Your task to perform on an android device: open app "Walmart Shopping & Grocery" (install if not already installed) Image 0: 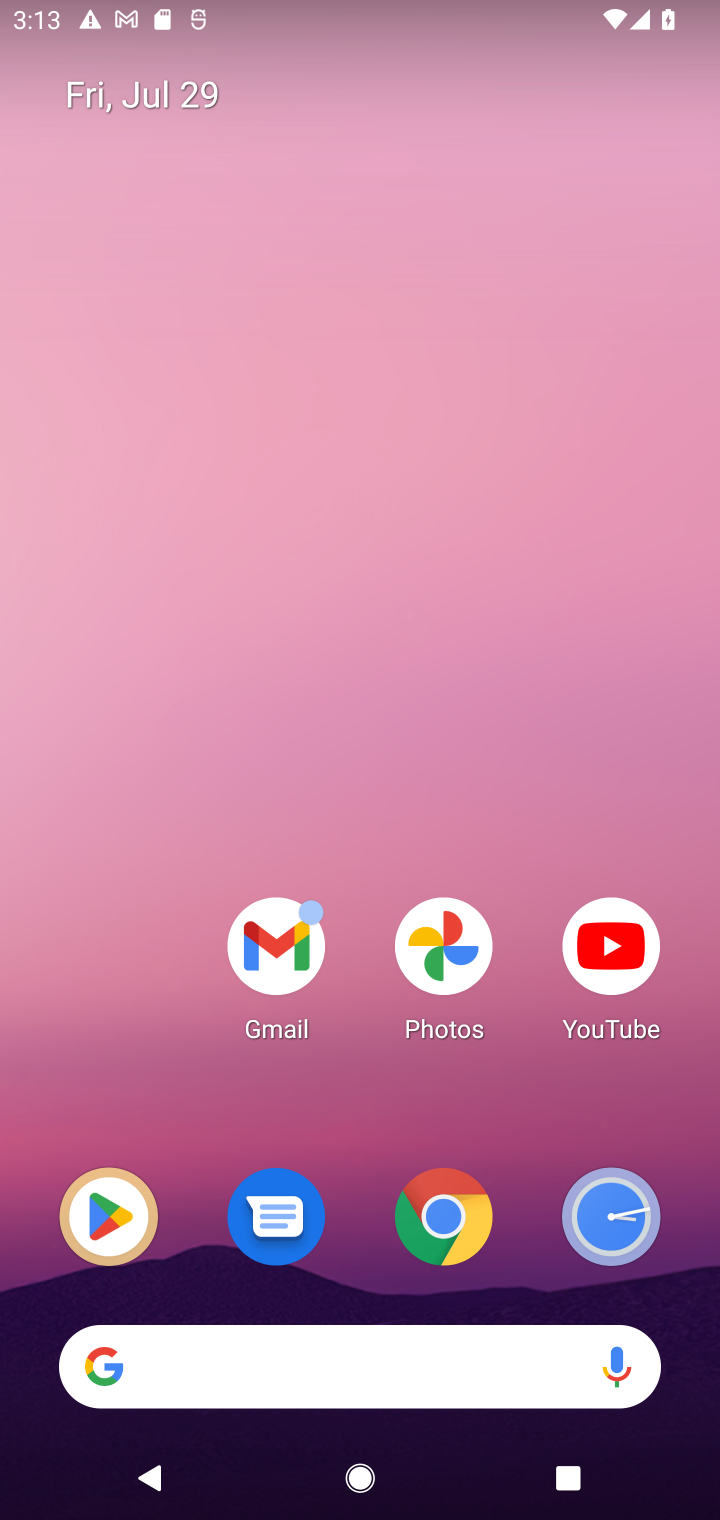
Step 0: drag from (571, 1227) to (523, 207)
Your task to perform on an android device: open app "Walmart Shopping & Grocery" (install if not already installed) Image 1: 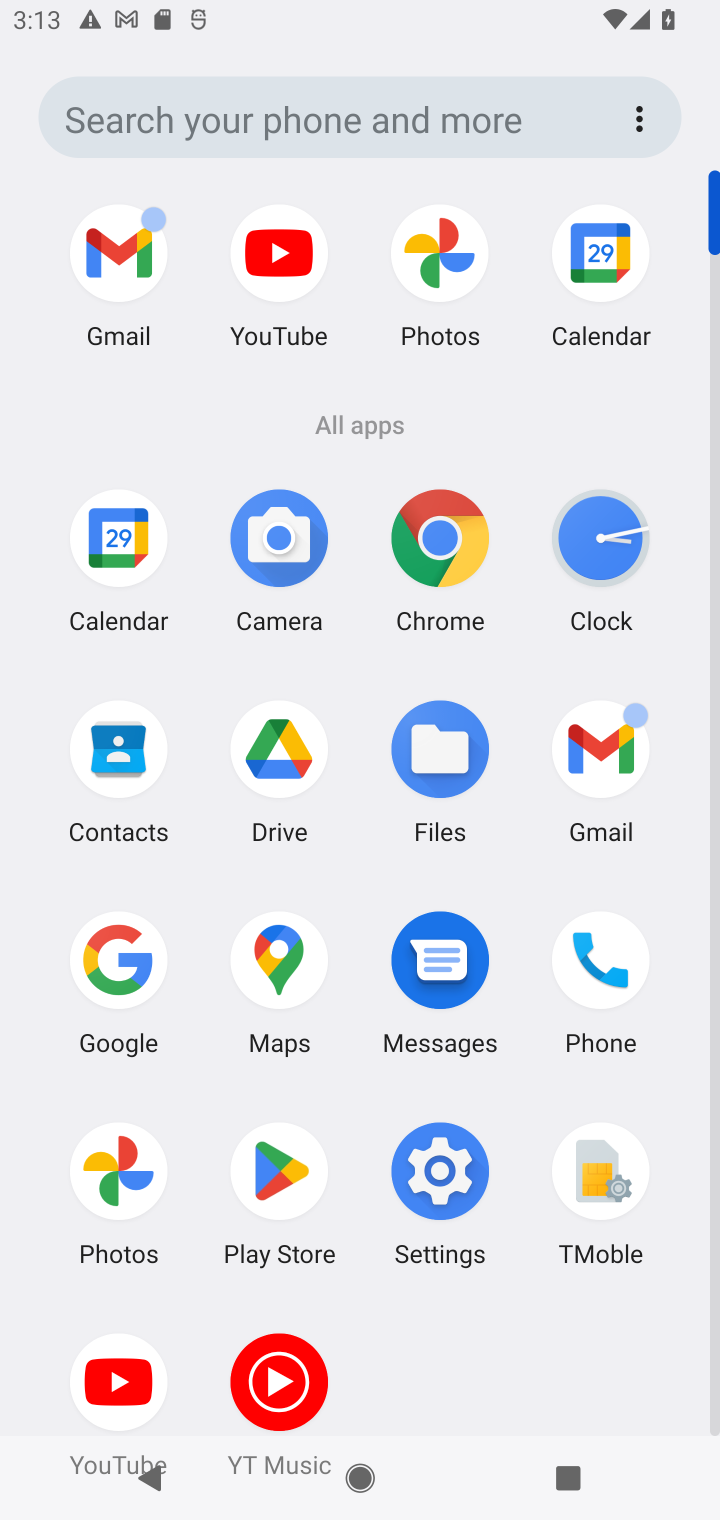
Step 1: click (269, 1190)
Your task to perform on an android device: open app "Walmart Shopping & Grocery" (install if not already installed) Image 2: 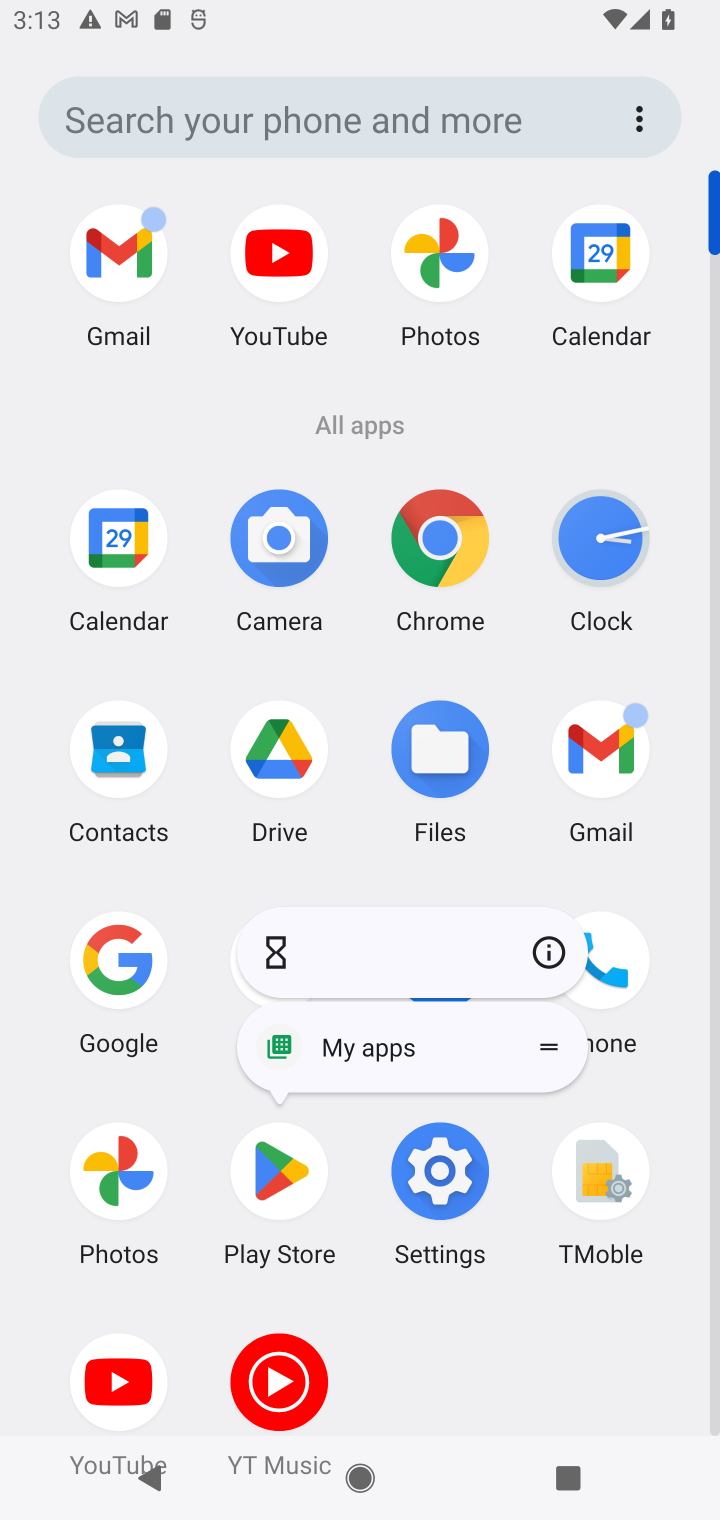
Step 2: click (269, 1187)
Your task to perform on an android device: open app "Walmart Shopping & Grocery" (install if not already installed) Image 3: 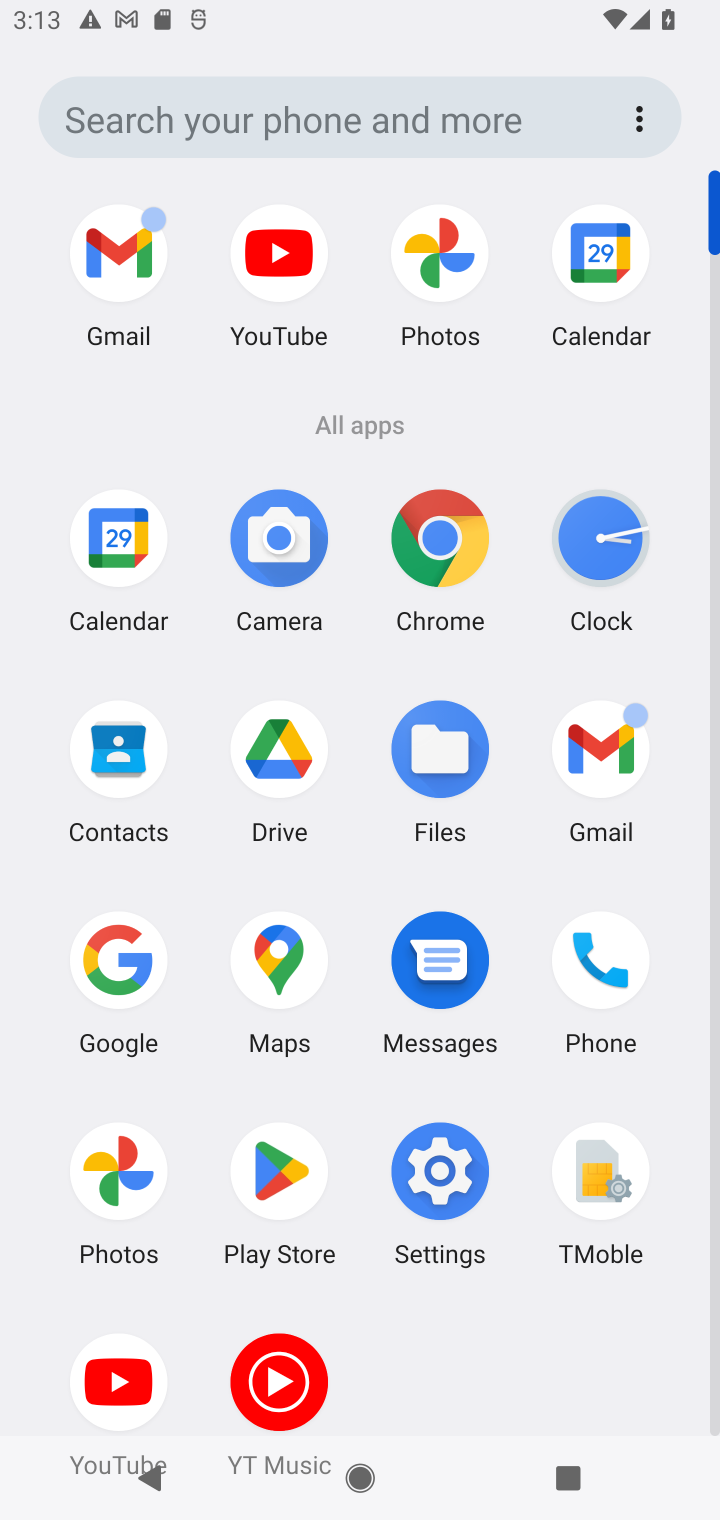
Step 3: click (269, 1187)
Your task to perform on an android device: open app "Walmart Shopping & Grocery" (install if not already installed) Image 4: 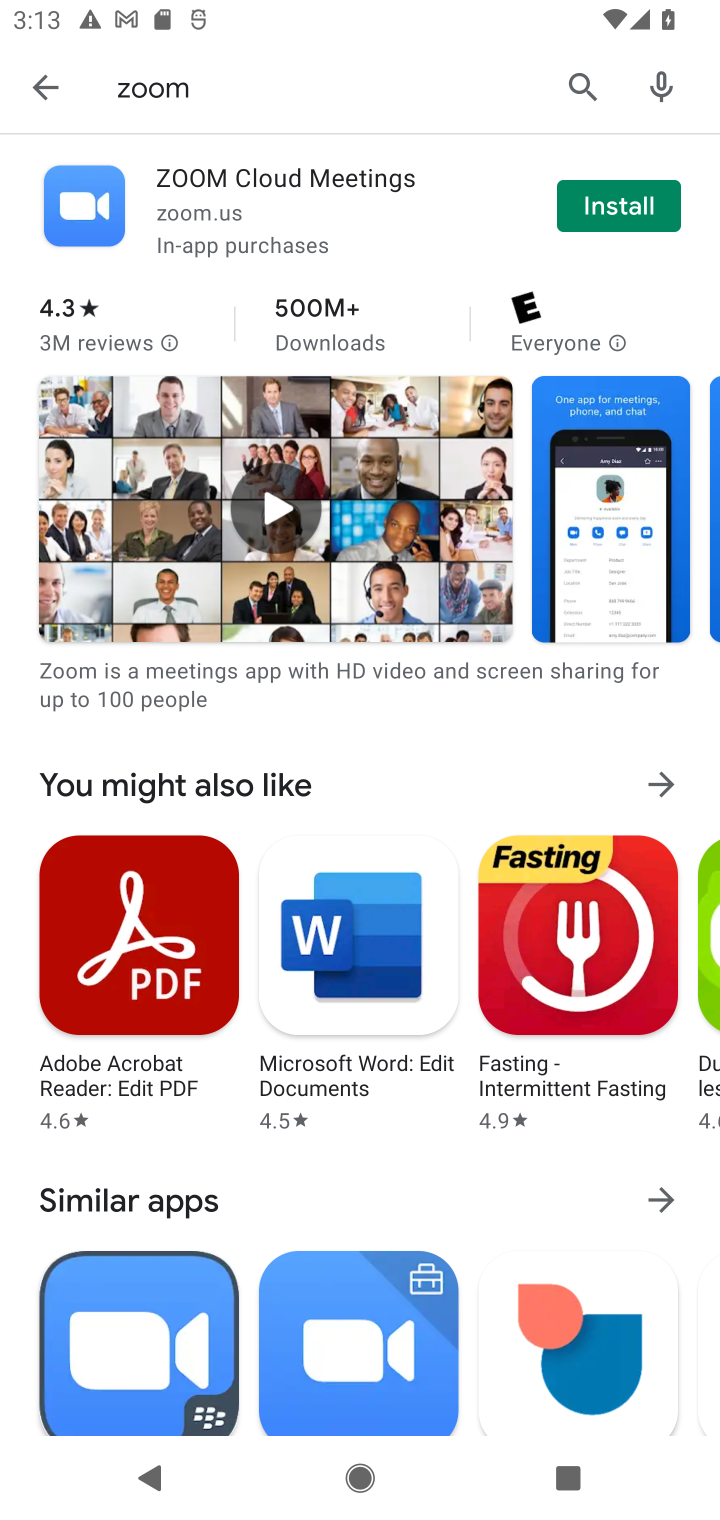
Step 4: click (234, 86)
Your task to perform on an android device: open app "Walmart Shopping & Grocery" (install if not already installed) Image 5: 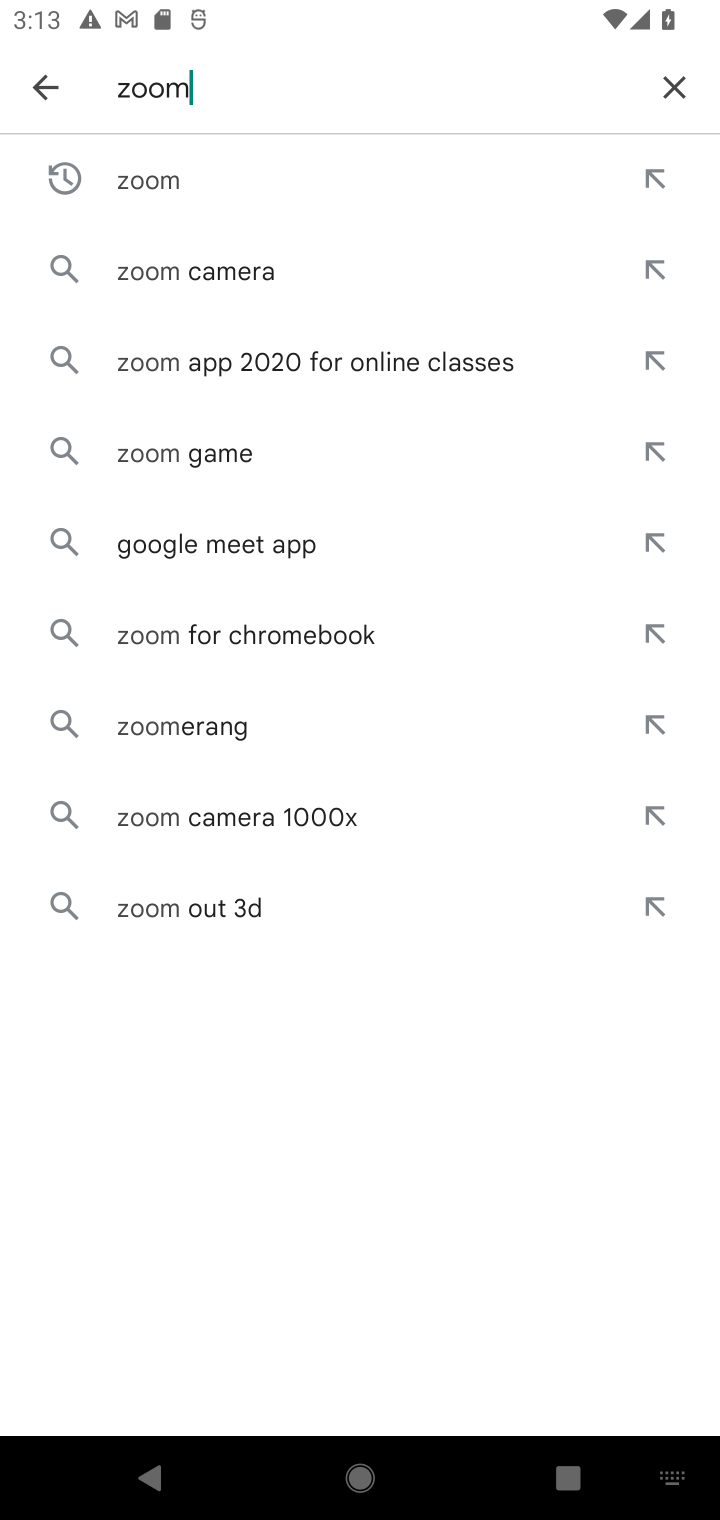
Step 5: click (680, 96)
Your task to perform on an android device: open app "Walmart Shopping & Grocery" (install if not already installed) Image 6: 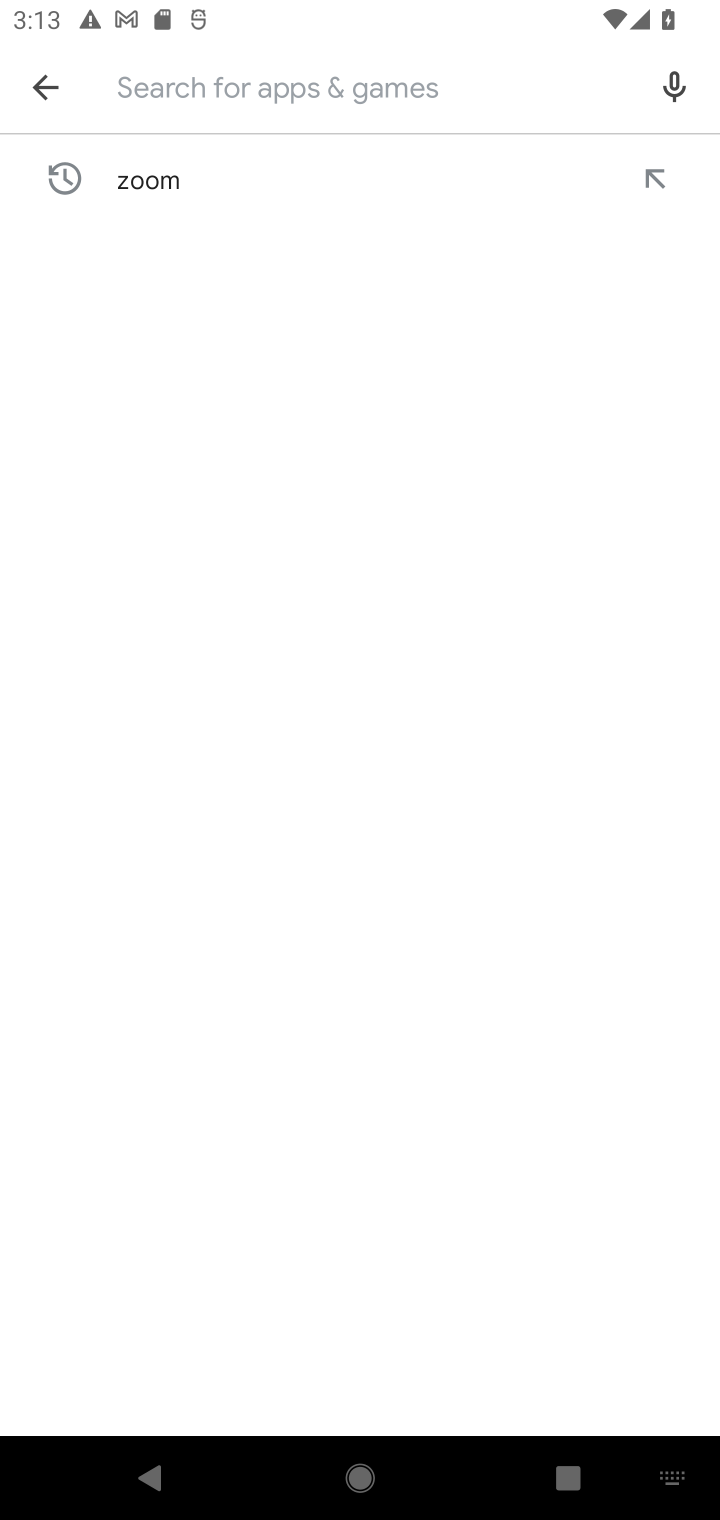
Step 6: type "walmart"
Your task to perform on an android device: open app "Walmart Shopping & Grocery" (install if not already installed) Image 7: 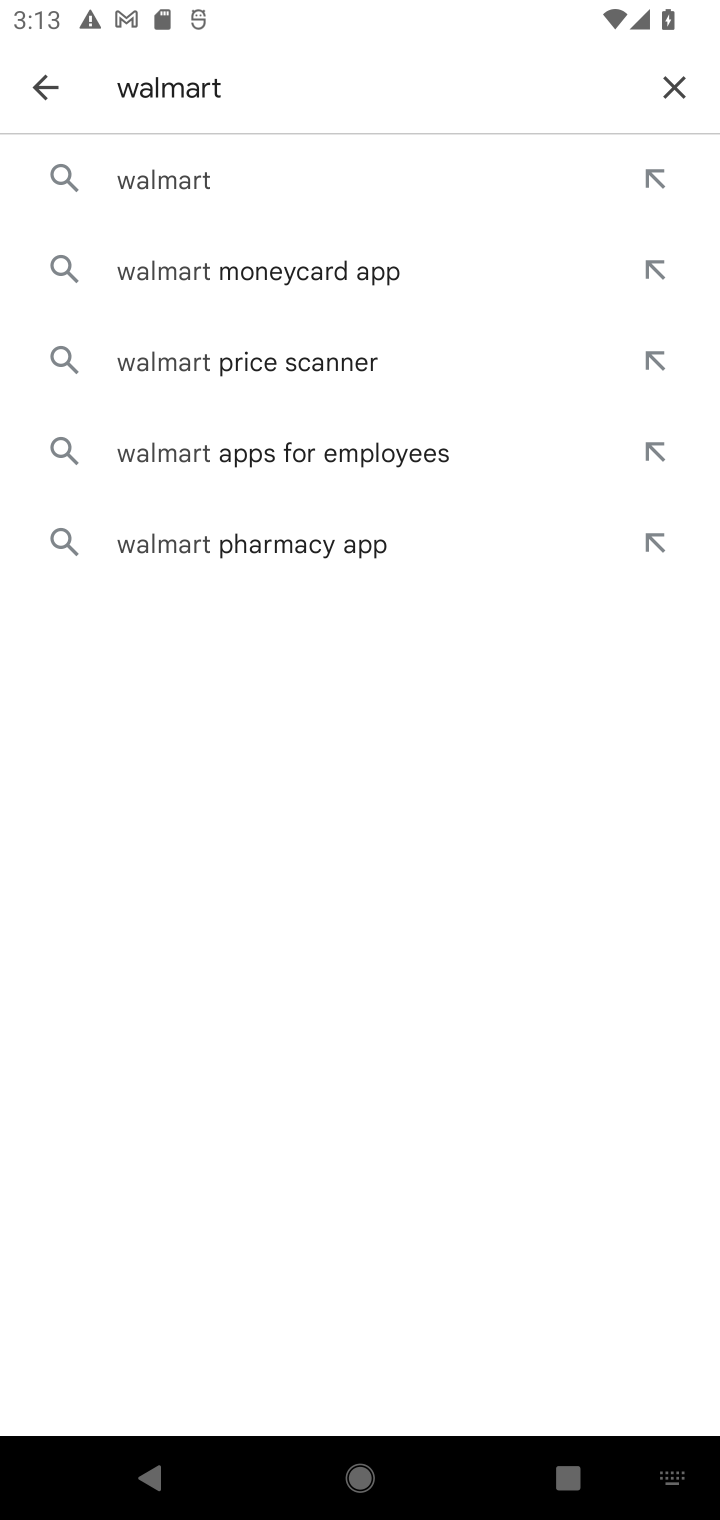
Step 7: click (469, 172)
Your task to perform on an android device: open app "Walmart Shopping & Grocery" (install if not already installed) Image 8: 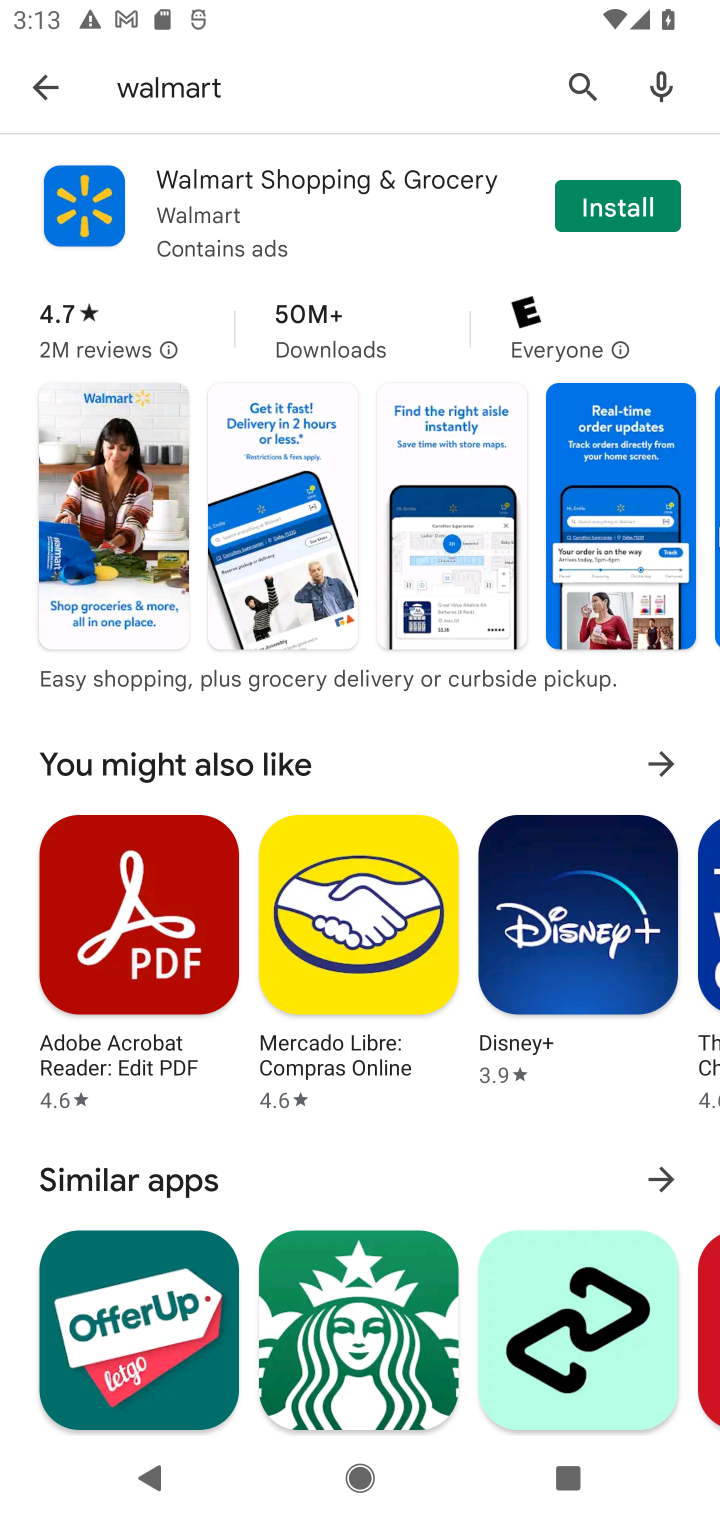
Step 8: click (623, 200)
Your task to perform on an android device: open app "Walmart Shopping & Grocery" (install if not already installed) Image 9: 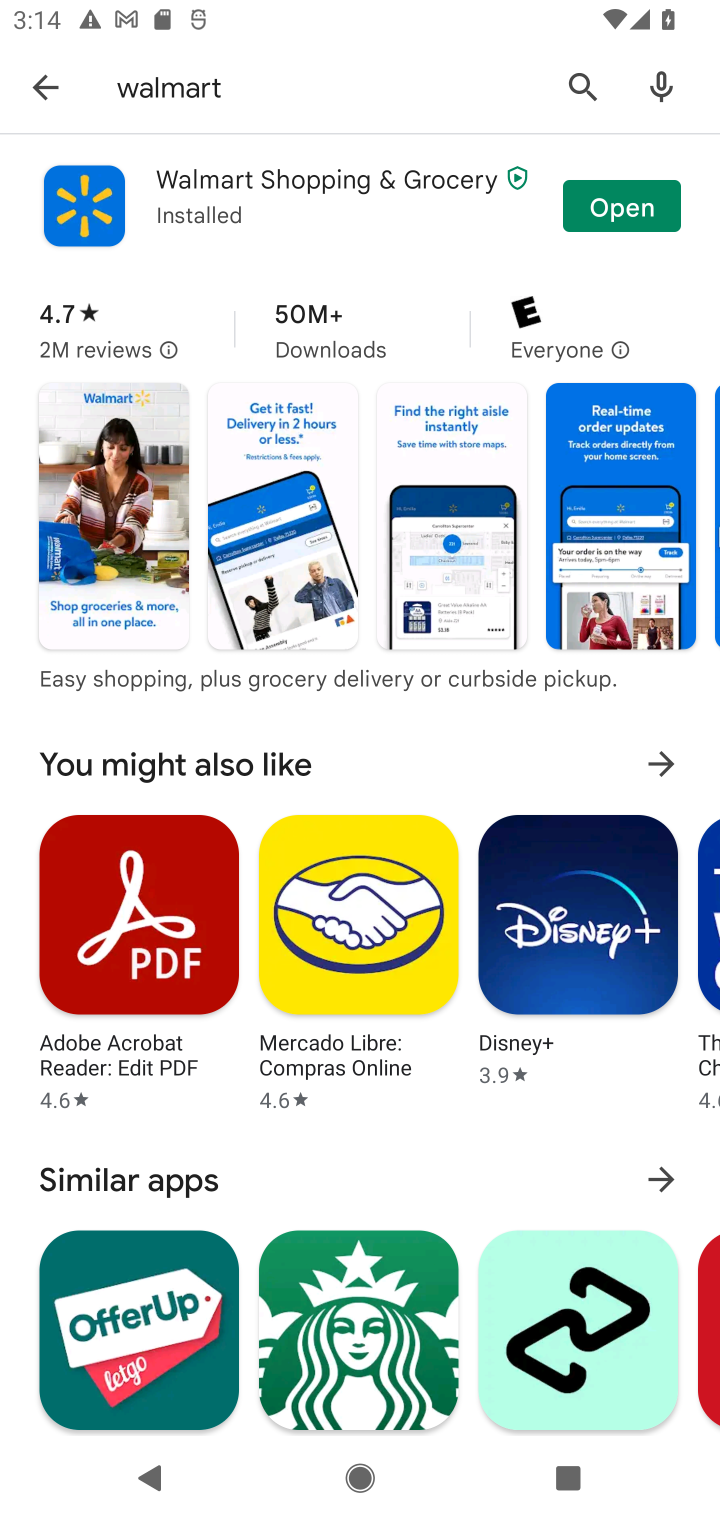
Step 9: click (593, 203)
Your task to perform on an android device: open app "Walmart Shopping & Grocery" (install if not already installed) Image 10: 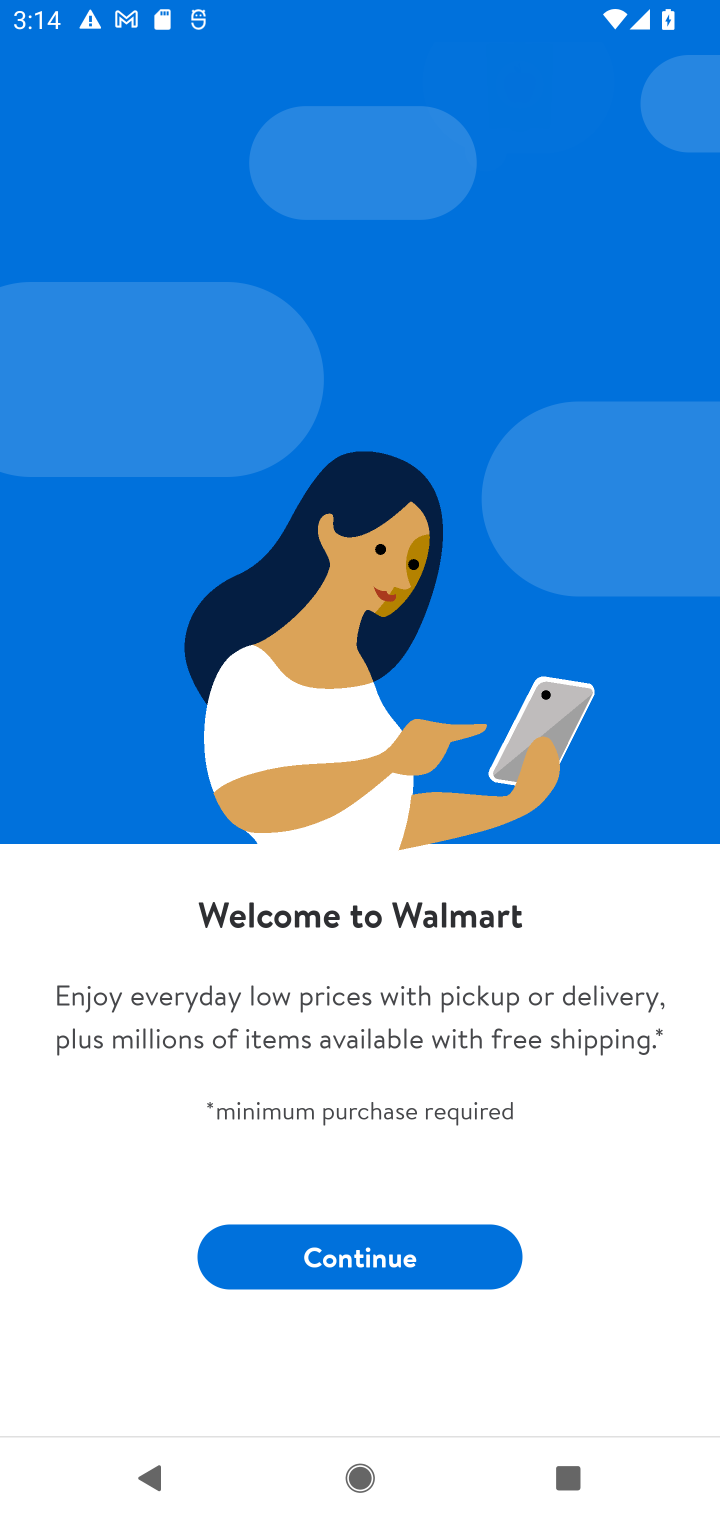
Step 10: click (398, 1255)
Your task to perform on an android device: open app "Walmart Shopping & Grocery" (install if not already installed) Image 11: 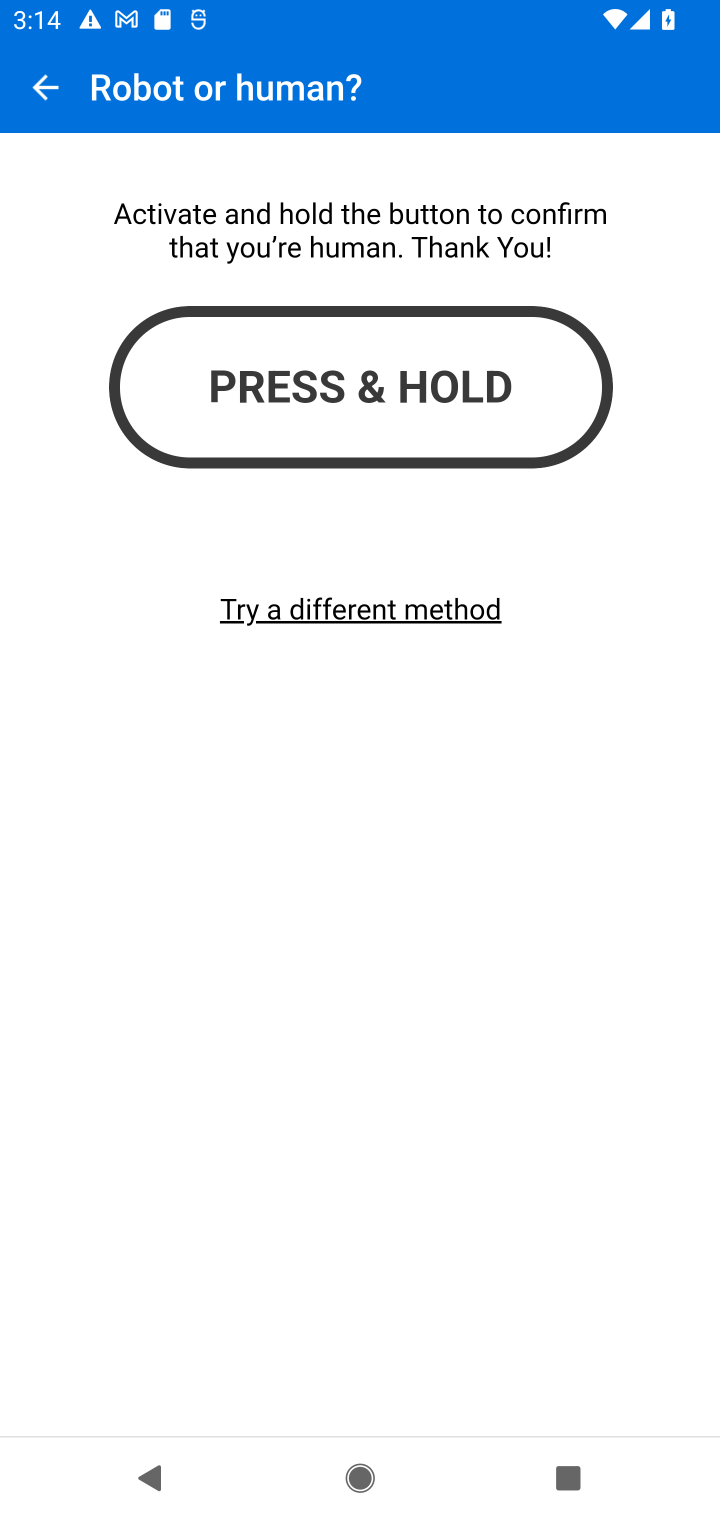
Step 11: task complete